Your task to perform on an android device: open app "Walmart Shopping & Grocery" (install if not already installed), go to login, and select forgot password Image 0: 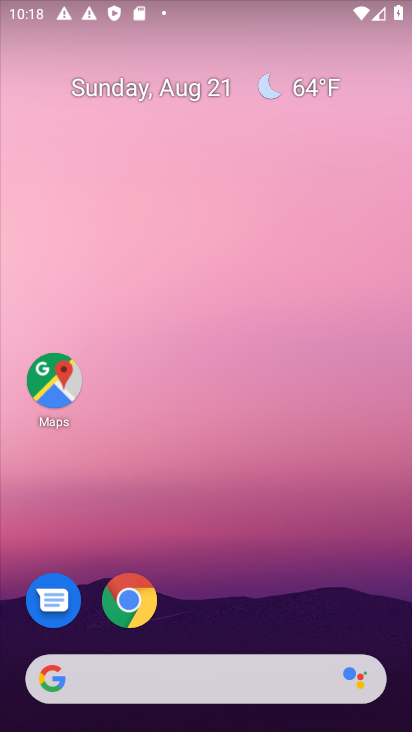
Step 0: drag from (223, 550) to (274, 58)
Your task to perform on an android device: open app "Walmart Shopping & Grocery" (install if not already installed), go to login, and select forgot password Image 1: 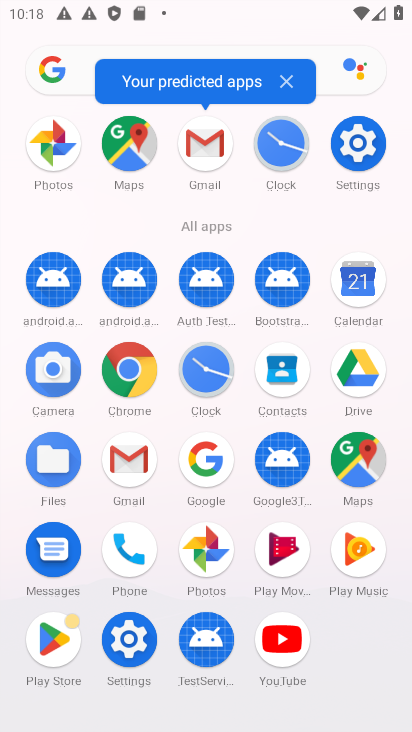
Step 1: click (62, 628)
Your task to perform on an android device: open app "Walmart Shopping & Grocery" (install if not already installed), go to login, and select forgot password Image 2: 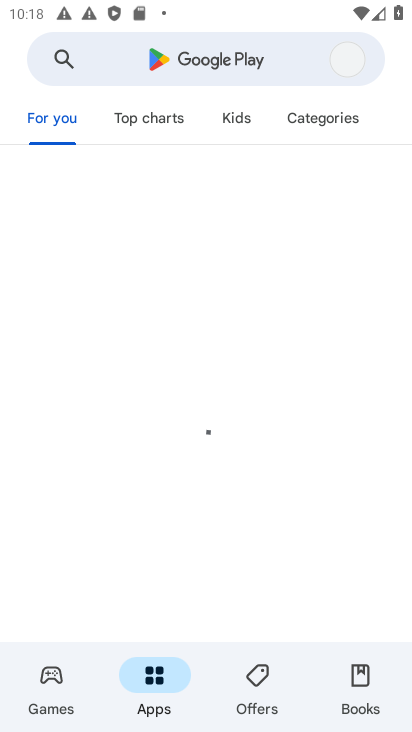
Step 2: click (203, 62)
Your task to perform on an android device: open app "Walmart Shopping & Grocery" (install if not already installed), go to login, and select forgot password Image 3: 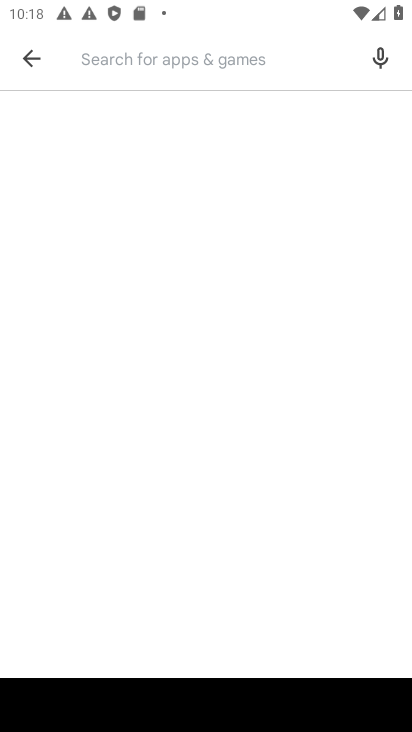
Step 3: type "walmart"
Your task to perform on an android device: open app "Walmart Shopping & Grocery" (install if not already installed), go to login, and select forgot password Image 4: 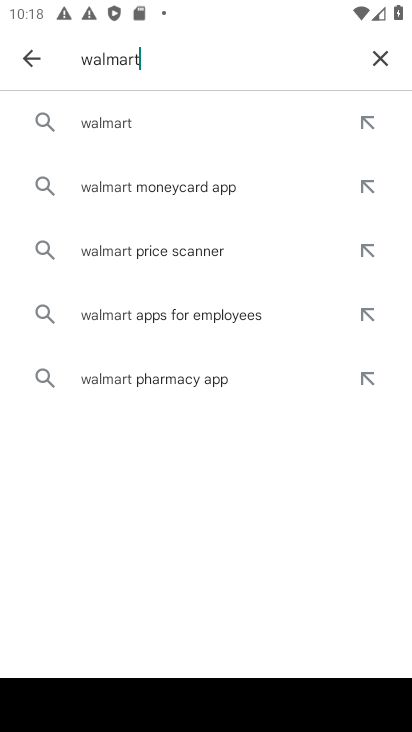
Step 4: click (140, 131)
Your task to perform on an android device: open app "Walmart Shopping & Grocery" (install if not already installed), go to login, and select forgot password Image 5: 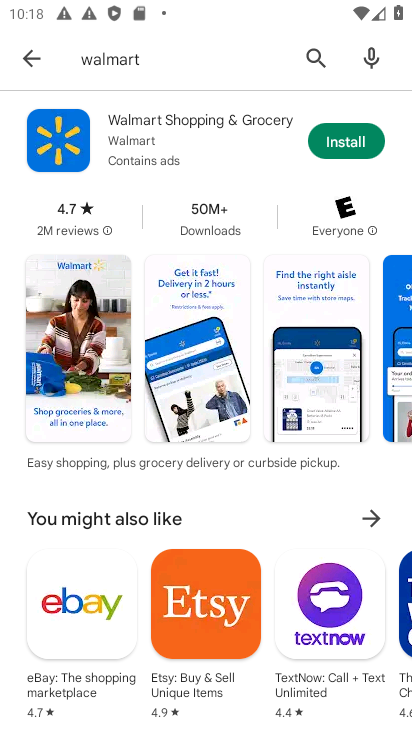
Step 5: click (356, 147)
Your task to perform on an android device: open app "Walmart Shopping & Grocery" (install if not already installed), go to login, and select forgot password Image 6: 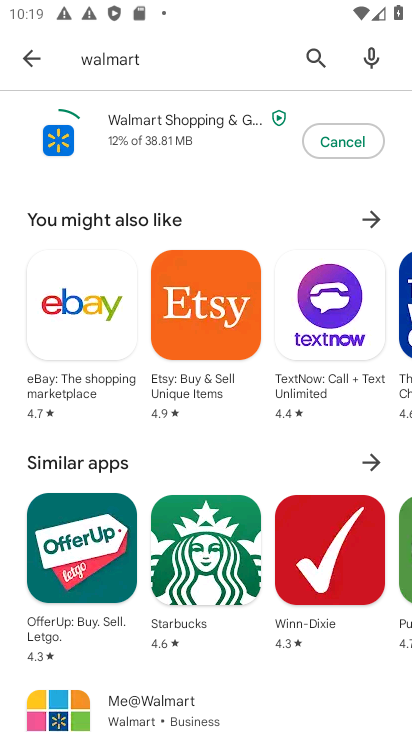
Step 6: click (285, 174)
Your task to perform on an android device: open app "Walmart Shopping & Grocery" (install if not already installed), go to login, and select forgot password Image 7: 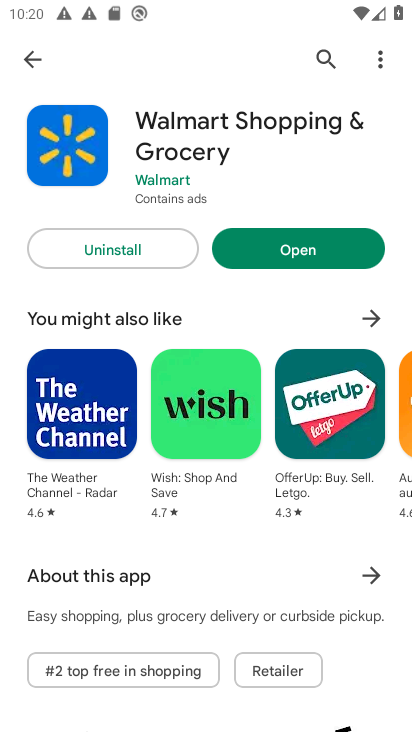
Step 7: click (323, 256)
Your task to perform on an android device: open app "Walmart Shopping & Grocery" (install if not already installed), go to login, and select forgot password Image 8: 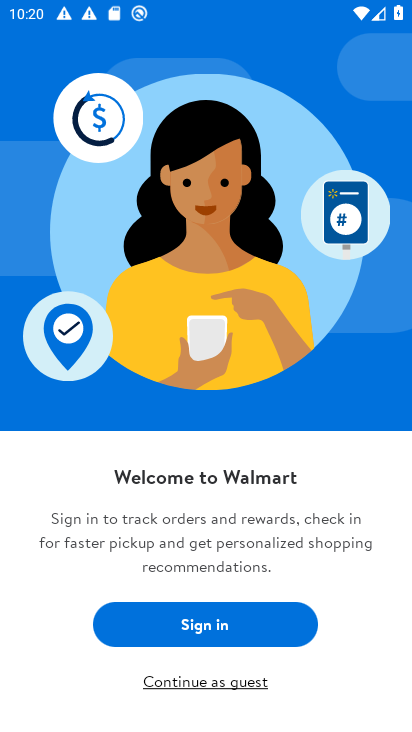
Step 8: click (259, 627)
Your task to perform on an android device: open app "Walmart Shopping & Grocery" (install if not already installed), go to login, and select forgot password Image 9: 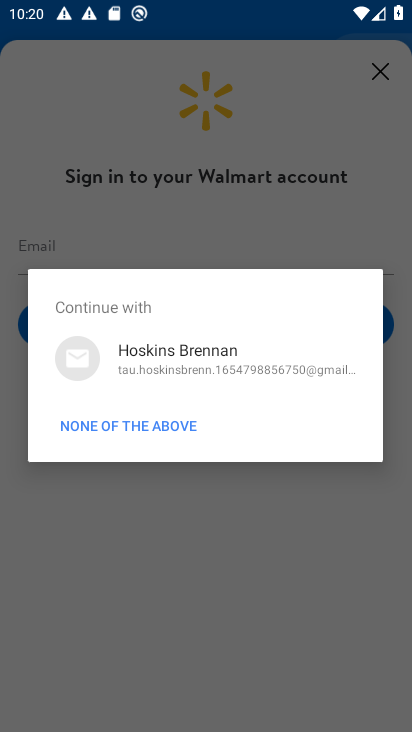
Step 9: click (231, 363)
Your task to perform on an android device: open app "Walmart Shopping & Grocery" (install if not already installed), go to login, and select forgot password Image 10: 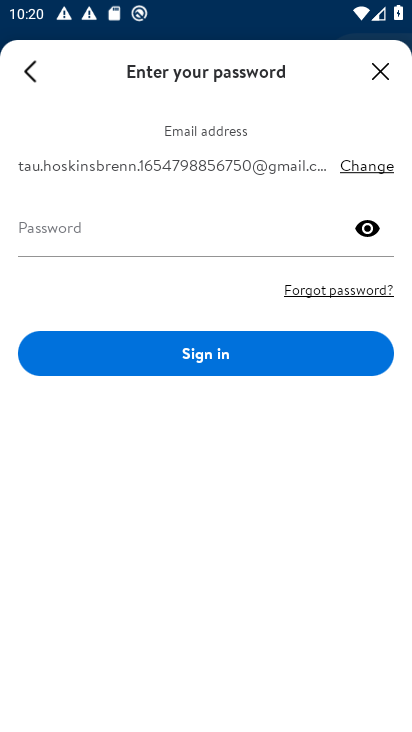
Step 10: click (368, 282)
Your task to perform on an android device: open app "Walmart Shopping & Grocery" (install if not already installed), go to login, and select forgot password Image 11: 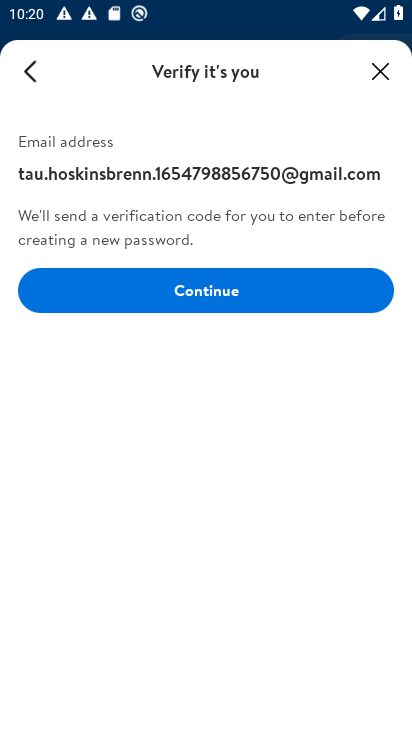
Step 11: task complete